Your task to perform on an android device: What is the recent news? Image 0: 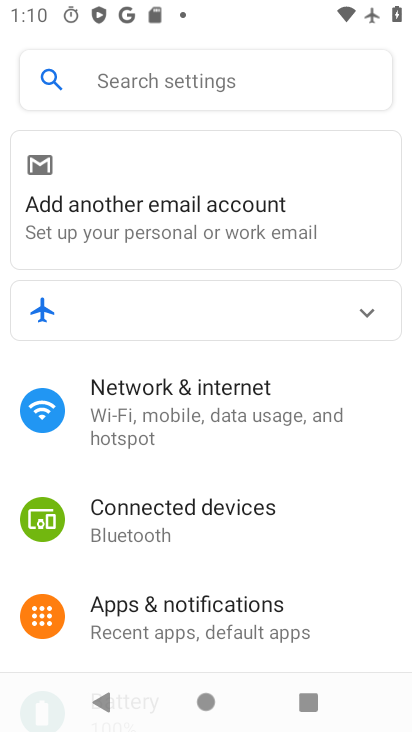
Step 0: press home button
Your task to perform on an android device: What is the recent news? Image 1: 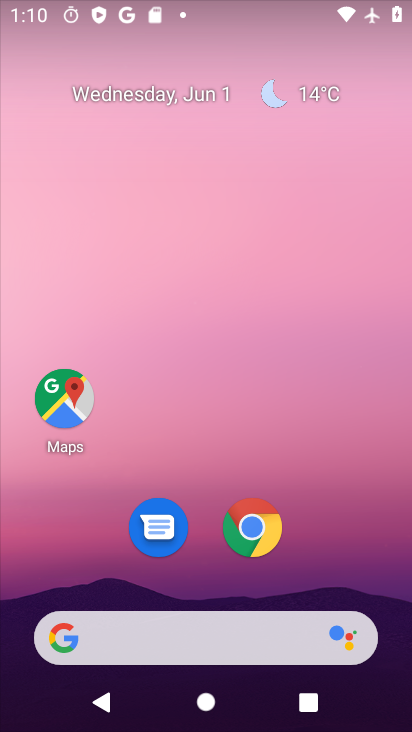
Step 1: drag from (198, 622) to (256, 88)
Your task to perform on an android device: What is the recent news? Image 2: 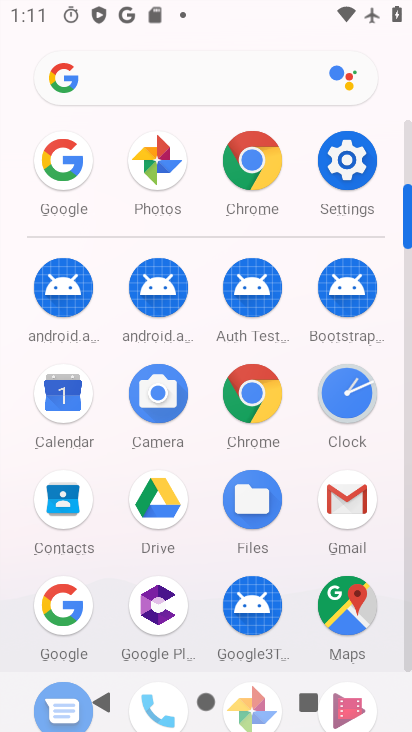
Step 2: click (80, 606)
Your task to perform on an android device: What is the recent news? Image 3: 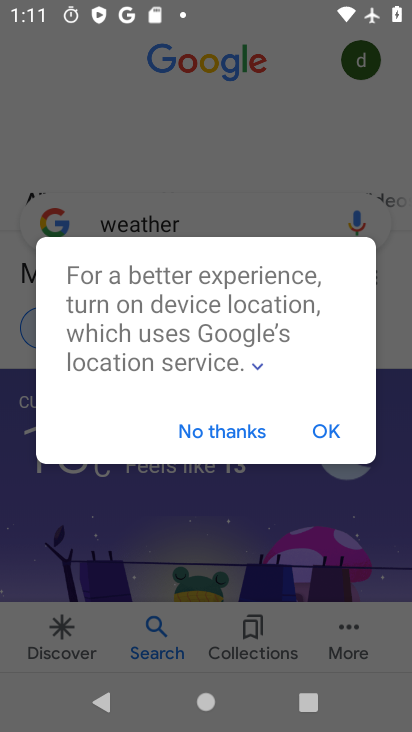
Step 3: click (331, 437)
Your task to perform on an android device: What is the recent news? Image 4: 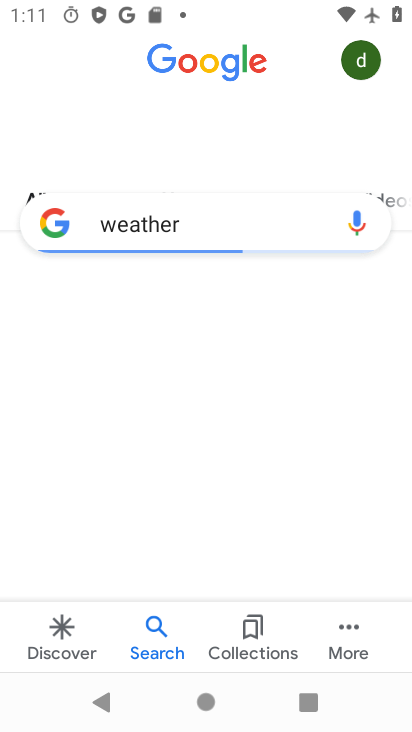
Step 4: click (273, 228)
Your task to perform on an android device: What is the recent news? Image 5: 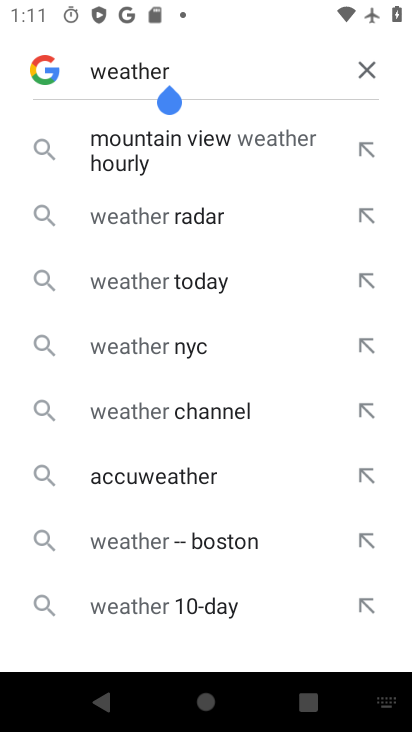
Step 5: click (378, 68)
Your task to perform on an android device: What is the recent news? Image 6: 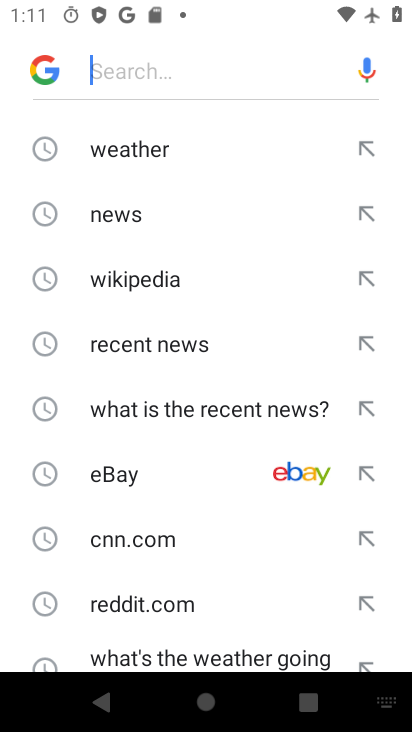
Step 6: click (212, 201)
Your task to perform on an android device: What is the recent news? Image 7: 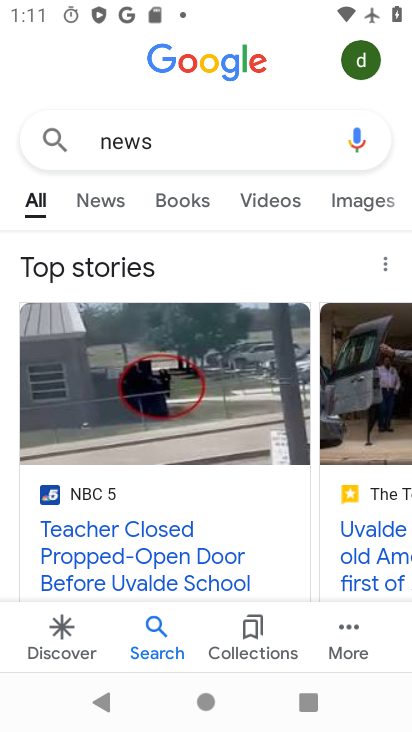
Step 7: click (107, 205)
Your task to perform on an android device: What is the recent news? Image 8: 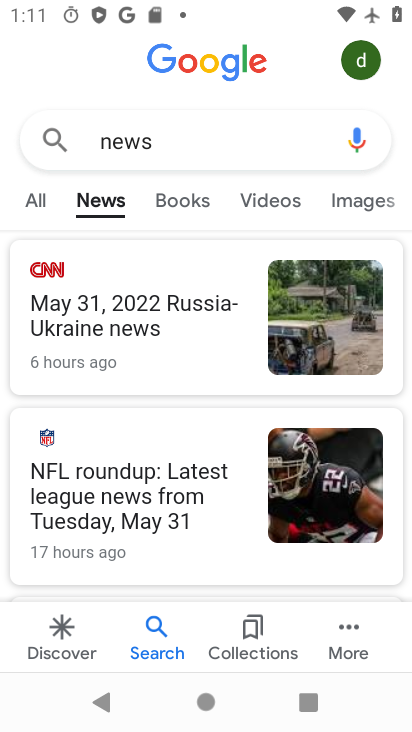
Step 8: task complete